Your task to perform on an android device: delete the emails in spam in the gmail app Image 0: 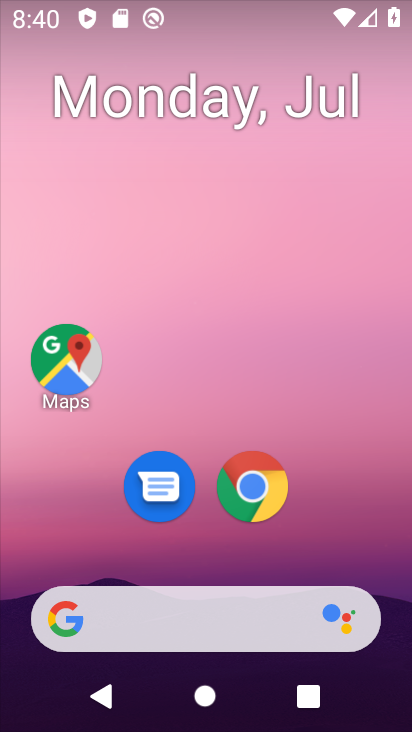
Step 0: drag from (183, 545) to (257, 36)
Your task to perform on an android device: delete the emails in spam in the gmail app Image 1: 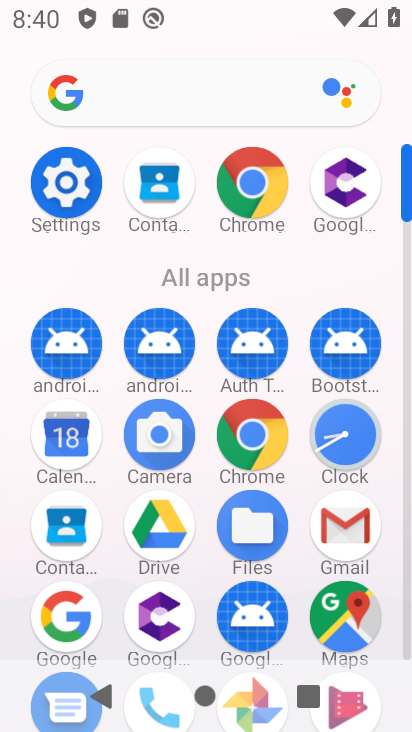
Step 1: click (351, 527)
Your task to perform on an android device: delete the emails in spam in the gmail app Image 2: 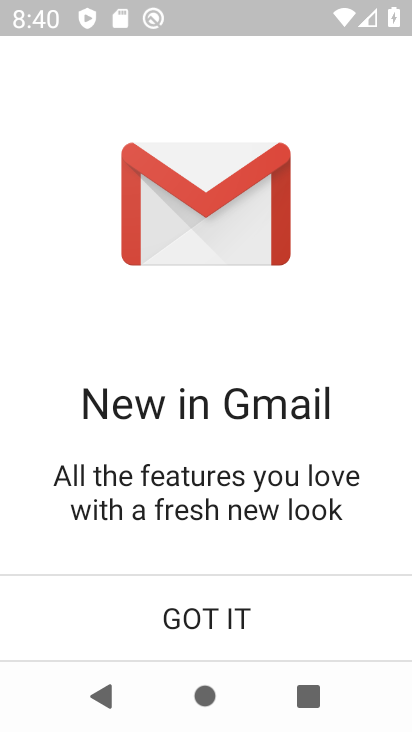
Step 2: click (210, 607)
Your task to perform on an android device: delete the emails in spam in the gmail app Image 3: 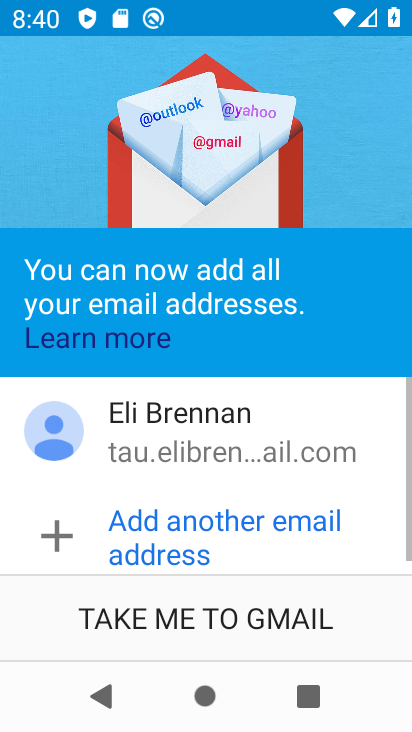
Step 3: click (126, 635)
Your task to perform on an android device: delete the emails in spam in the gmail app Image 4: 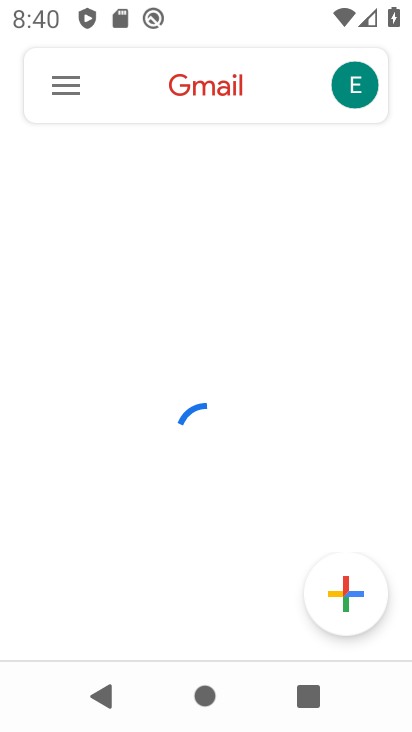
Step 4: click (59, 84)
Your task to perform on an android device: delete the emails in spam in the gmail app Image 5: 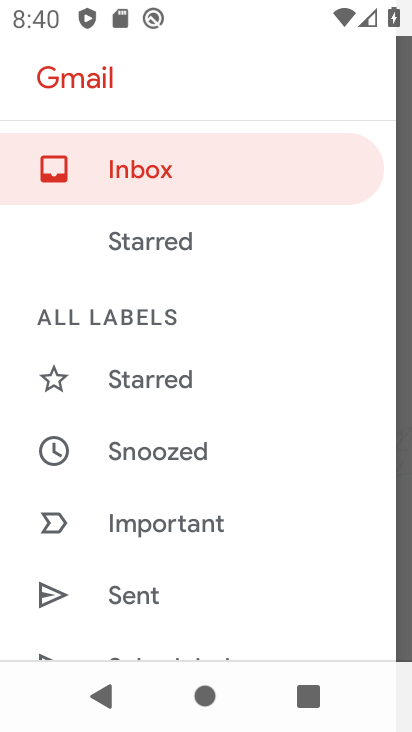
Step 5: drag from (177, 614) to (303, 107)
Your task to perform on an android device: delete the emails in spam in the gmail app Image 6: 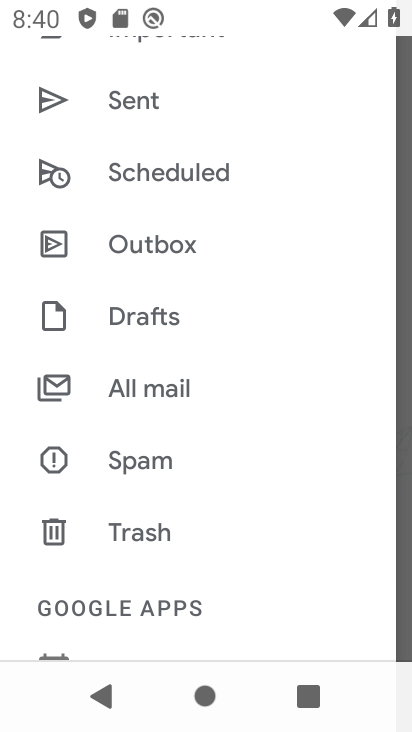
Step 6: click (129, 469)
Your task to perform on an android device: delete the emails in spam in the gmail app Image 7: 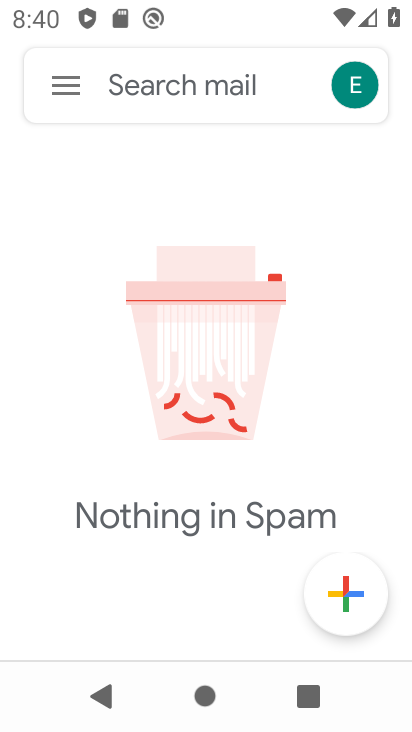
Step 7: task complete